Your task to perform on an android device: open chrome privacy settings Image 0: 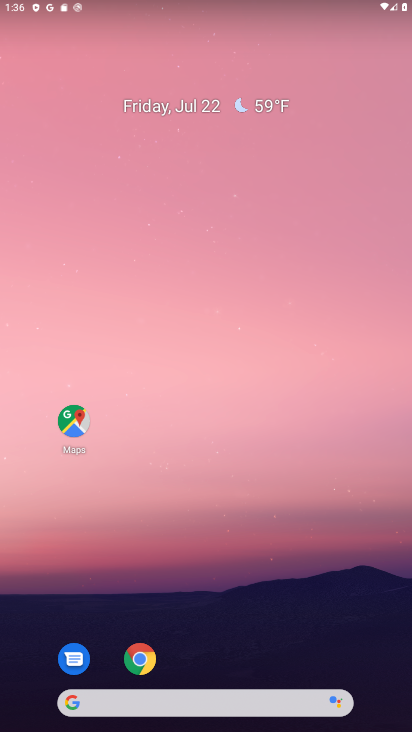
Step 0: drag from (300, 535) to (383, 0)
Your task to perform on an android device: open chrome privacy settings Image 1: 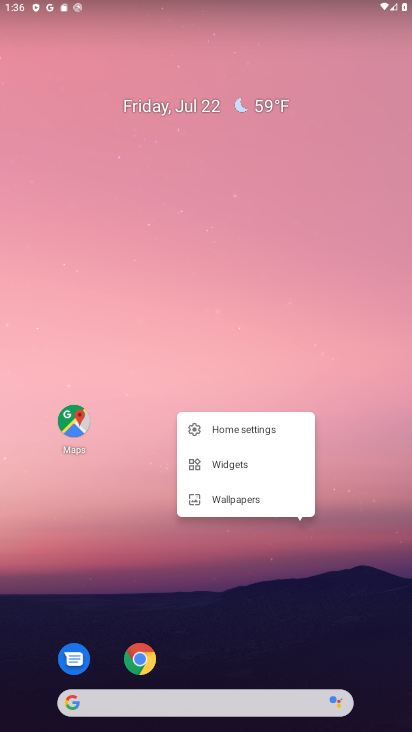
Step 1: click (2, 542)
Your task to perform on an android device: open chrome privacy settings Image 2: 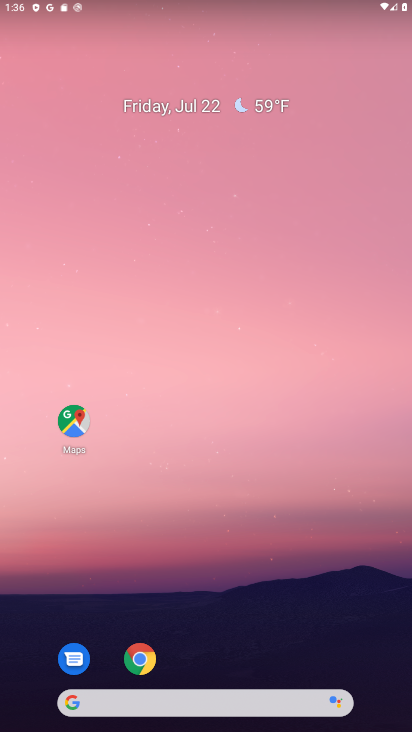
Step 2: click (105, 592)
Your task to perform on an android device: open chrome privacy settings Image 3: 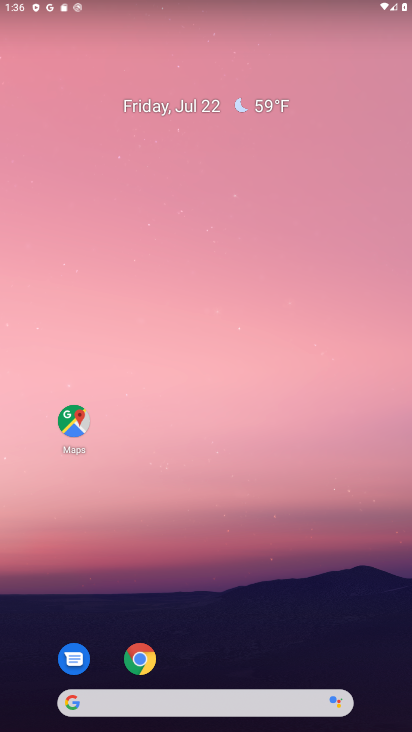
Step 3: drag from (255, 692) to (29, 18)
Your task to perform on an android device: open chrome privacy settings Image 4: 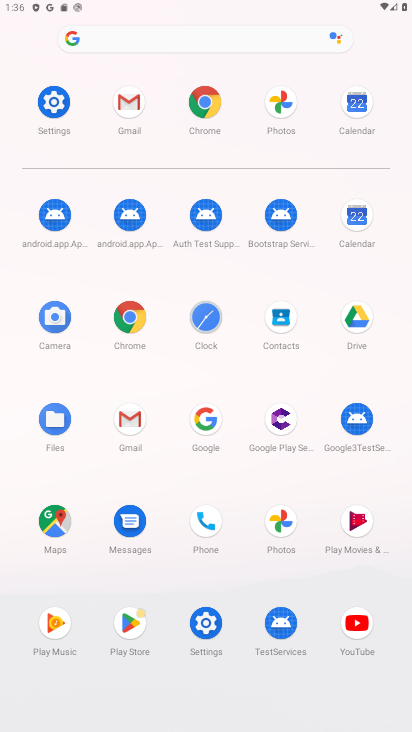
Step 4: click (58, 99)
Your task to perform on an android device: open chrome privacy settings Image 5: 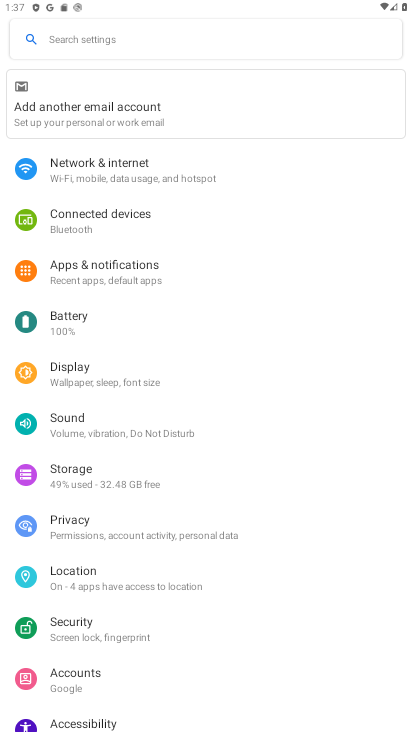
Step 5: press home button
Your task to perform on an android device: open chrome privacy settings Image 6: 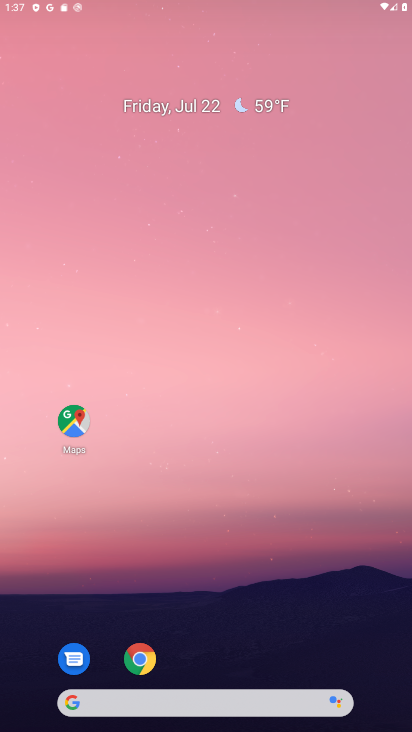
Step 6: drag from (246, 646) to (394, 87)
Your task to perform on an android device: open chrome privacy settings Image 7: 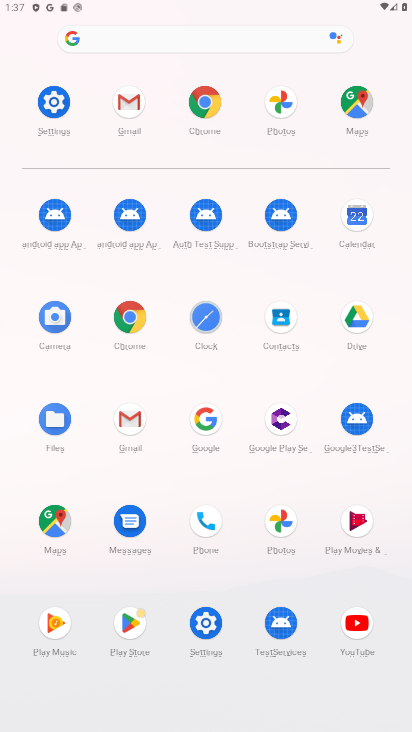
Step 7: click (184, 100)
Your task to perform on an android device: open chrome privacy settings Image 8: 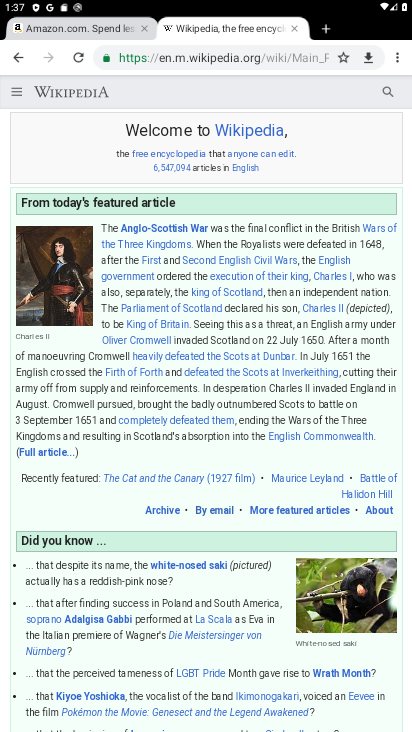
Step 8: drag from (400, 60) to (264, 389)
Your task to perform on an android device: open chrome privacy settings Image 9: 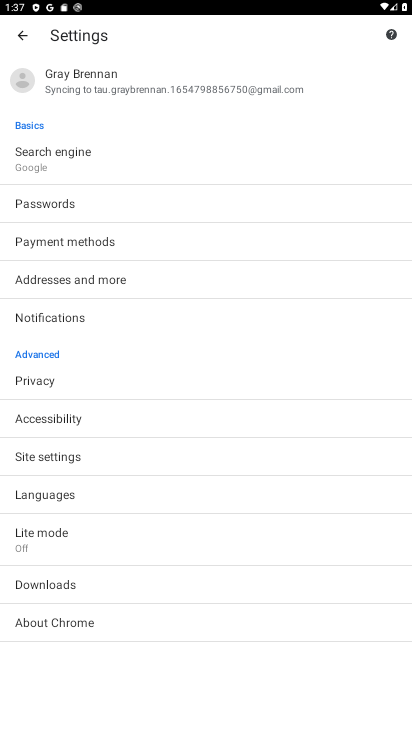
Step 9: click (73, 376)
Your task to perform on an android device: open chrome privacy settings Image 10: 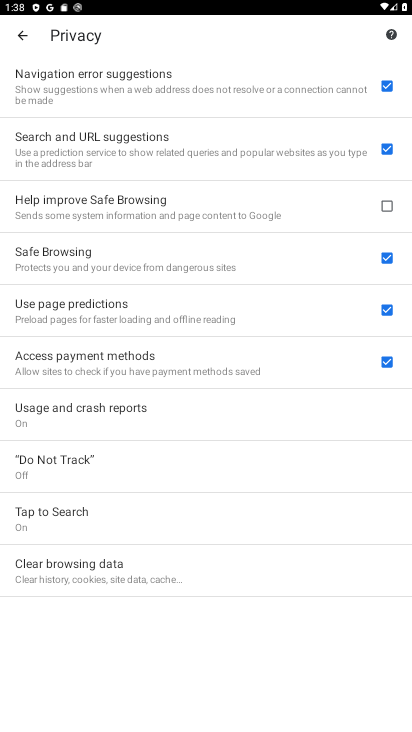
Step 10: task complete